Your task to perform on an android device: What is the recent news? Image 0: 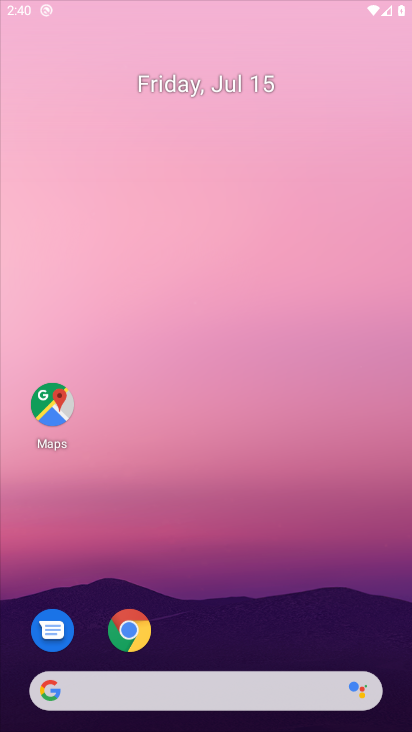
Step 0: press home button
Your task to perform on an android device: What is the recent news? Image 1: 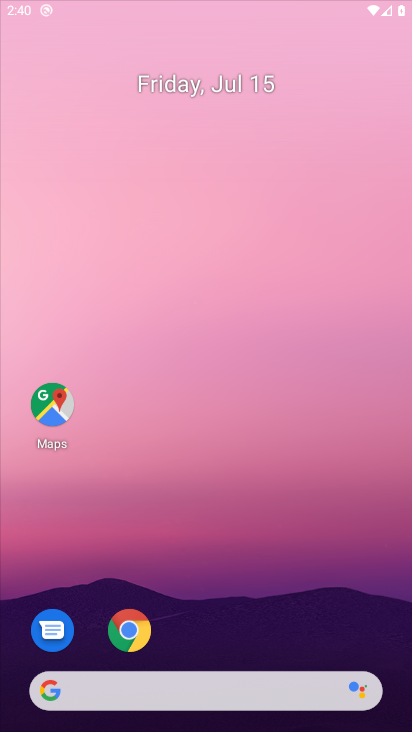
Step 1: click (319, 64)
Your task to perform on an android device: What is the recent news? Image 2: 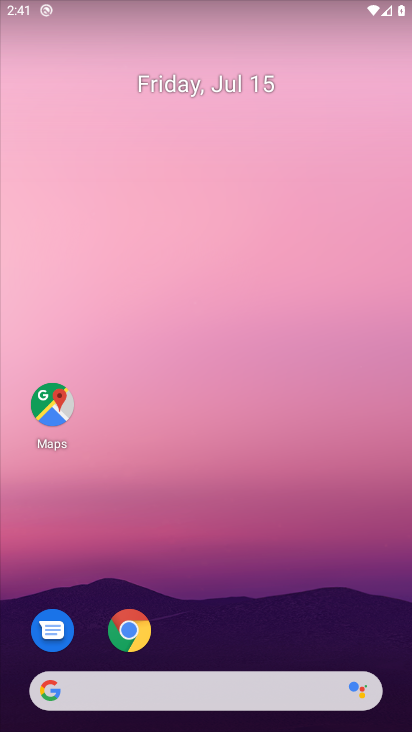
Step 2: click (49, 689)
Your task to perform on an android device: What is the recent news? Image 3: 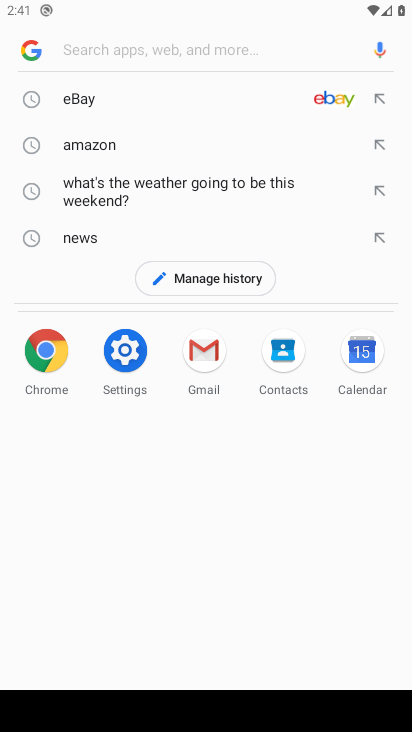
Step 3: type "recent news"
Your task to perform on an android device: What is the recent news? Image 4: 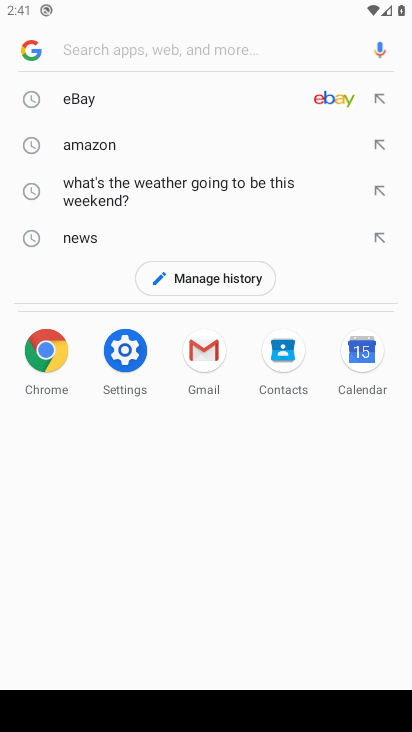
Step 4: click (107, 45)
Your task to perform on an android device: What is the recent news? Image 5: 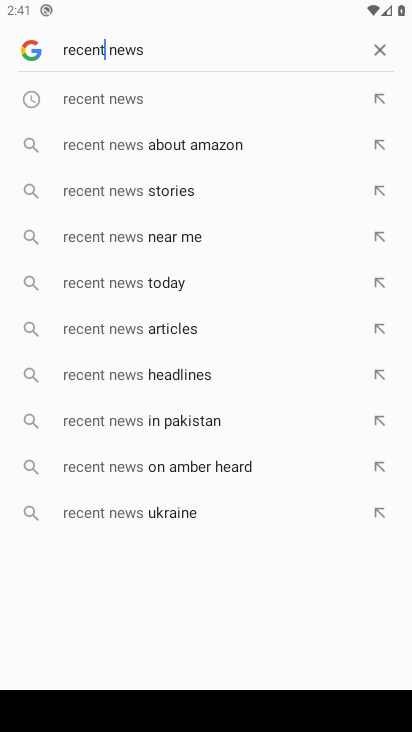
Step 5: press enter
Your task to perform on an android device: What is the recent news? Image 6: 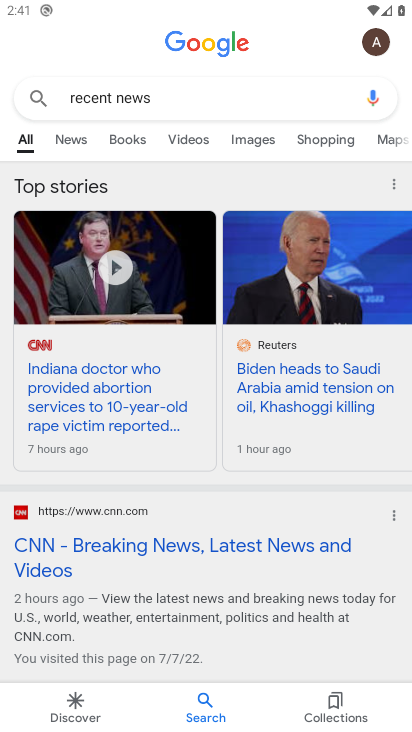
Step 6: task complete